Your task to perform on an android device: Show me popular games on the Play Store Image 0: 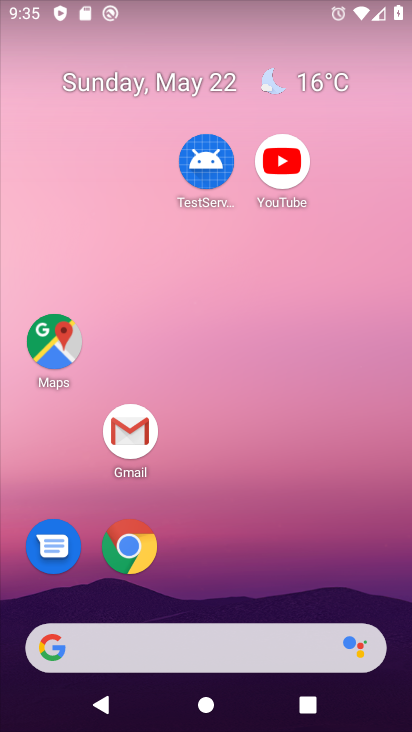
Step 0: drag from (263, 685) to (132, 78)
Your task to perform on an android device: Show me popular games on the Play Store Image 1: 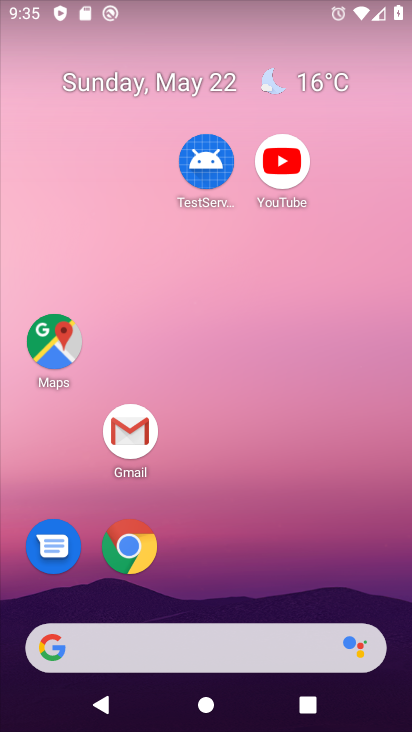
Step 1: drag from (311, 646) to (225, 135)
Your task to perform on an android device: Show me popular games on the Play Store Image 2: 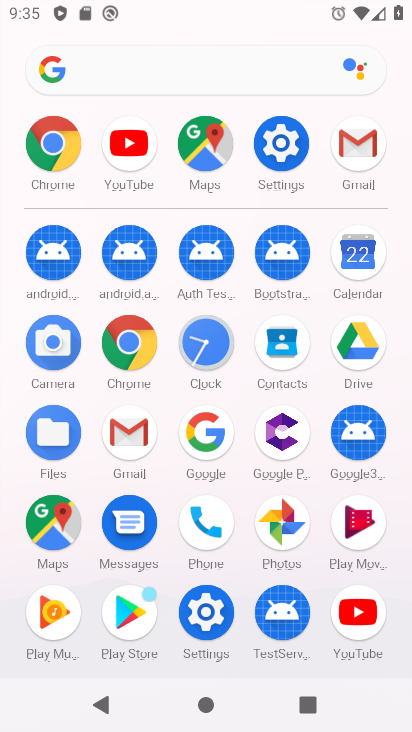
Step 2: click (129, 618)
Your task to perform on an android device: Show me popular games on the Play Store Image 3: 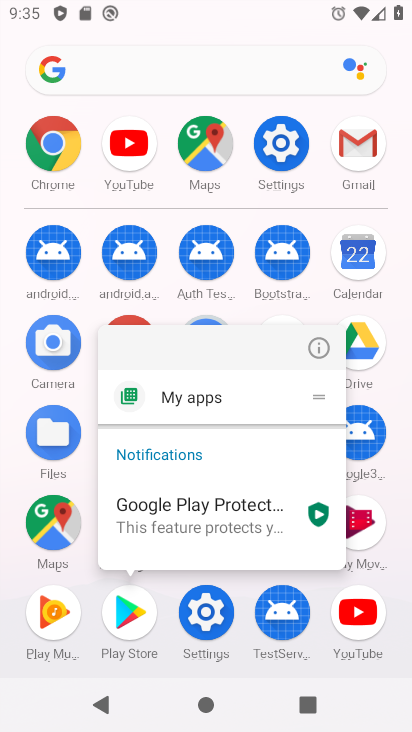
Step 3: click (129, 614)
Your task to perform on an android device: Show me popular games on the Play Store Image 4: 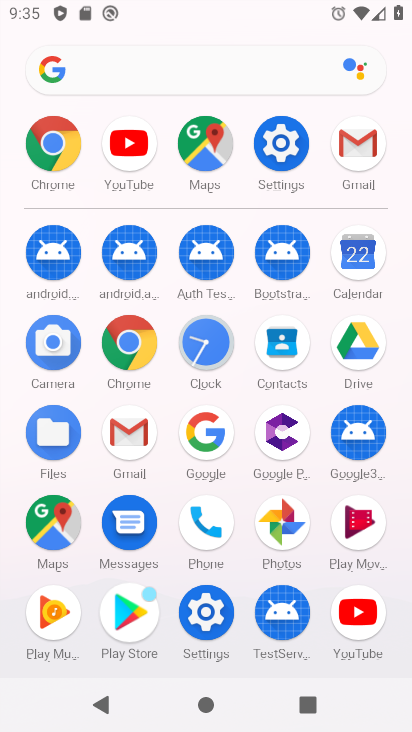
Step 4: click (129, 614)
Your task to perform on an android device: Show me popular games on the Play Store Image 5: 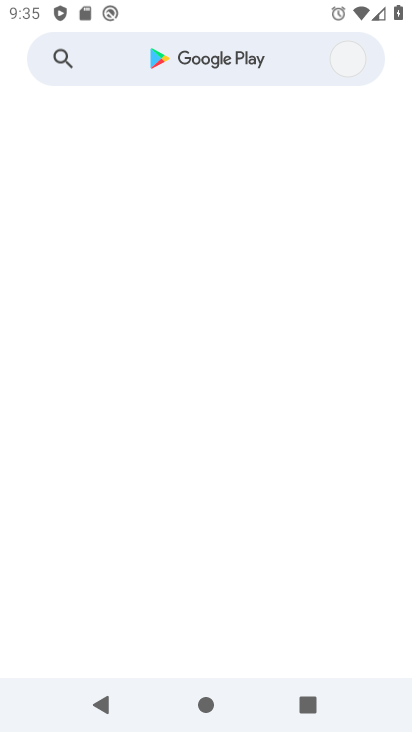
Step 5: click (113, 601)
Your task to perform on an android device: Show me popular games on the Play Store Image 6: 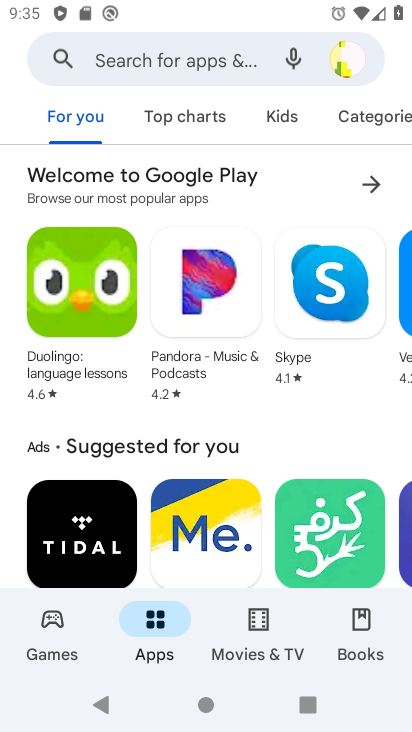
Step 6: click (113, 55)
Your task to perform on an android device: Show me popular games on the Play Store Image 7: 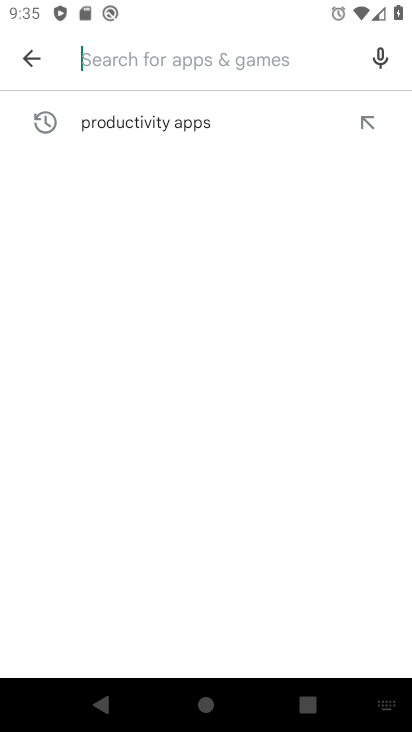
Step 7: type "popular games"
Your task to perform on an android device: Show me popular games on the Play Store Image 8: 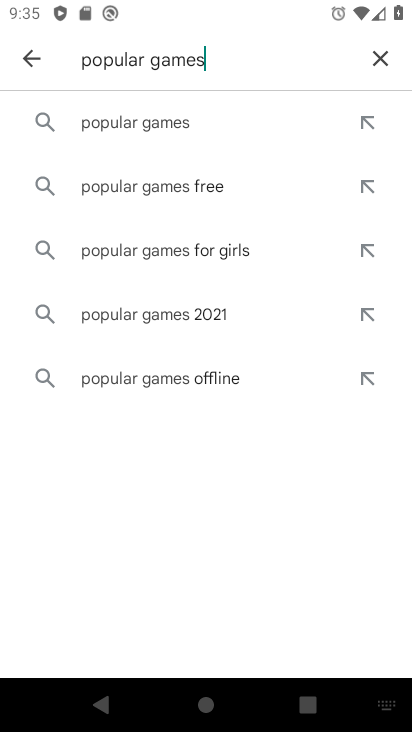
Step 8: click (187, 118)
Your task to perform on an android device: Show me popular games on the Play Store Image 9: 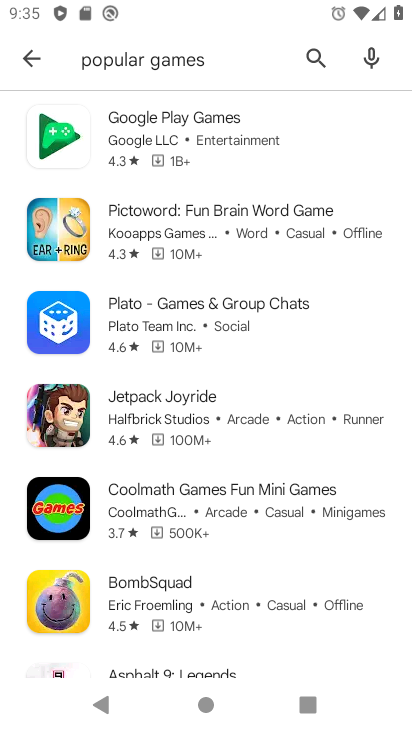
Step 9: task complete